Your task to perform on an android device: Open eBay Image 0: 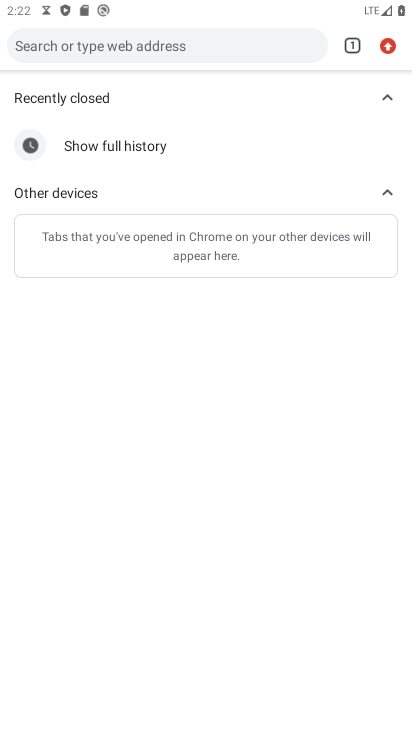
Step 0: press home button
Your task to perform on an android device: Open eBay Image 1: 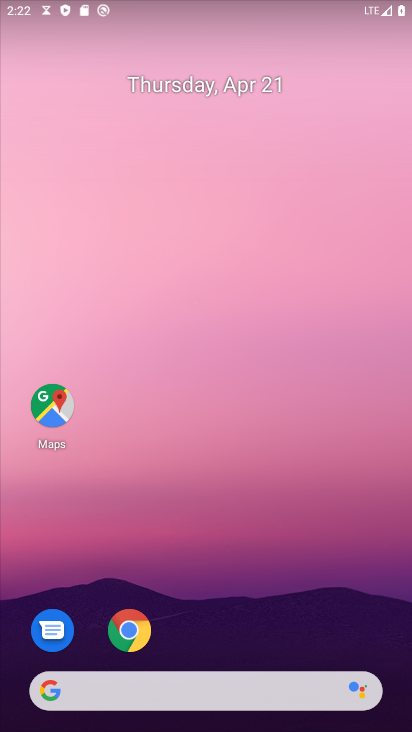
Step 1: click (131, 640)
Your task to perform on an android device: Open eBay Image 2: 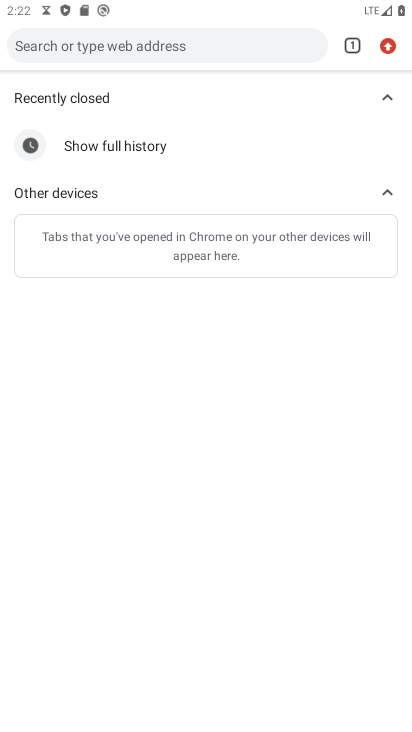
Step 2: click (186, 48)
Your task to perform on an android device: Open eBay Image 3: 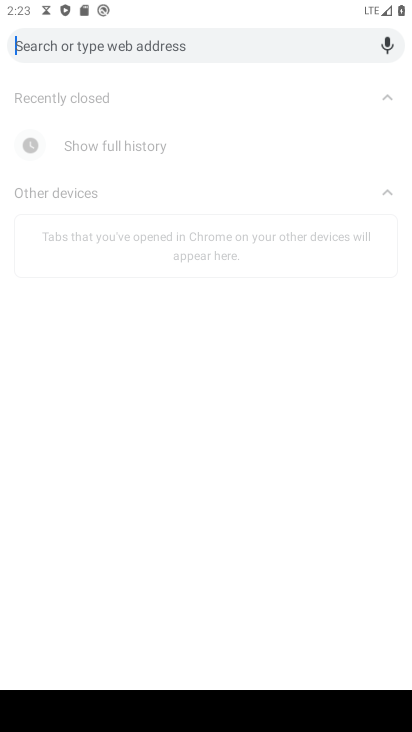
Step 3: type "ebay"
Your task to perform on an android device: Open eBay Image 4: 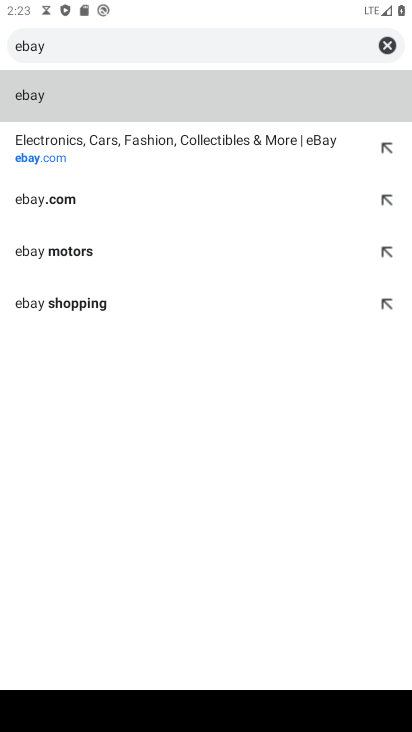
Step 4: click (51, 198)
Your task to perform on an android device: Open eBay Image 5: 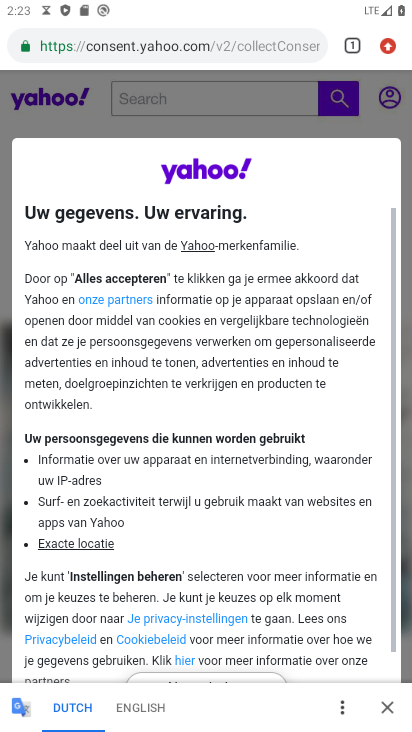
Step 5: click (257, 46)
Your task to perform on an android device: Open eBay Image 6: 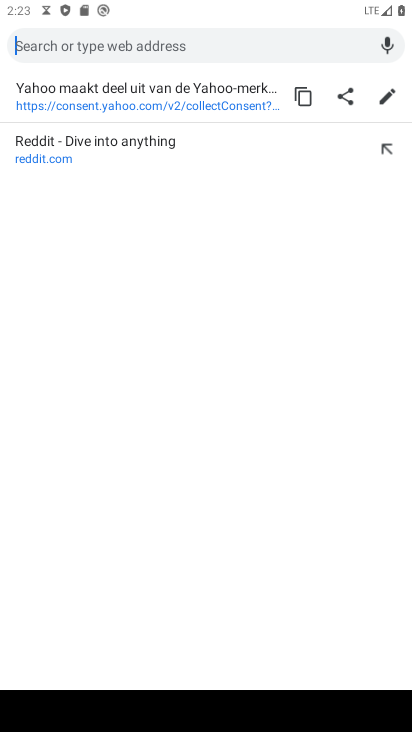
Step 6: type "ebay"
Your task to perform on an android device: Open eBay Image 7: 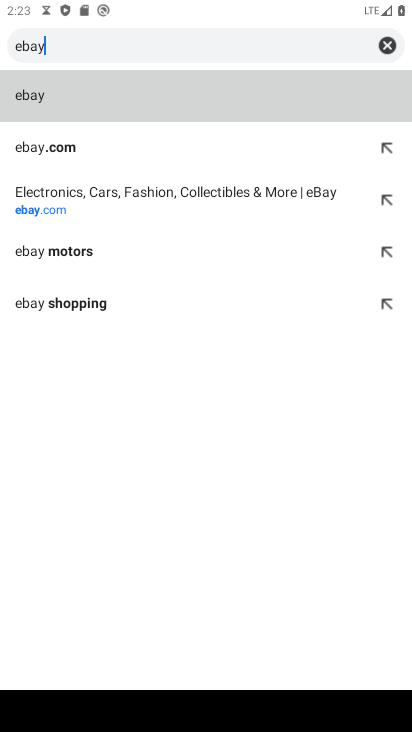
Step 7: click (31, 207)
Your task to perform on an android device: Open eBay Image 8: 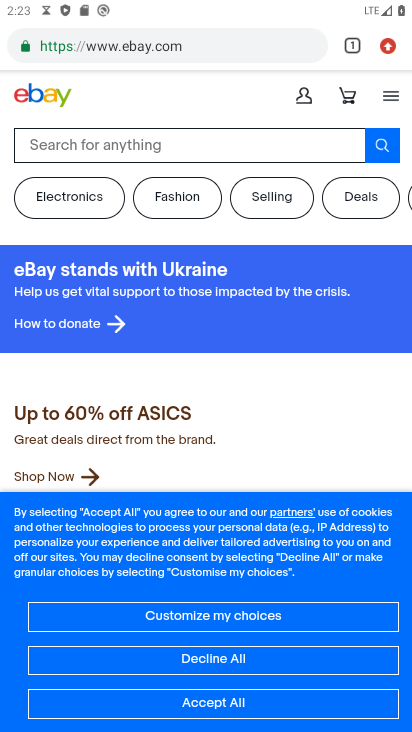
Step 8: task complete